Your task to perform on an android device: See recent photos Image 0: 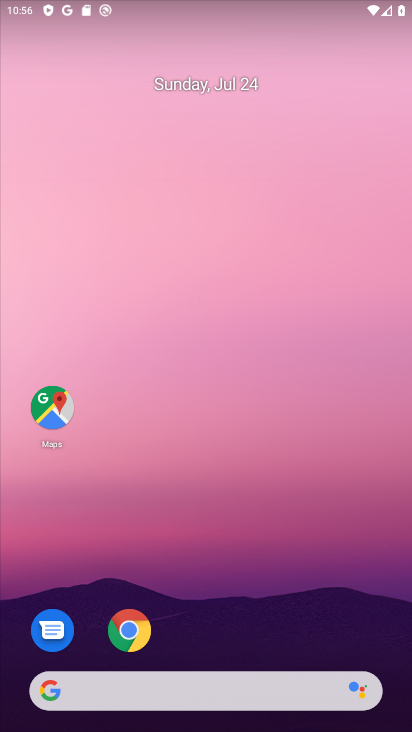
Step 0: press home button
Your task to perform on an android device: See recent photos Image 1: 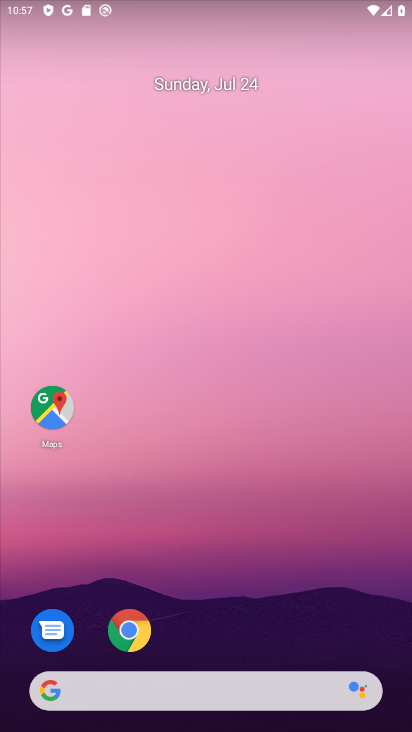
Step 1: drag from (298, 640) to (289, 133)
Your task to perform on an android device: See recent photos Image 2: 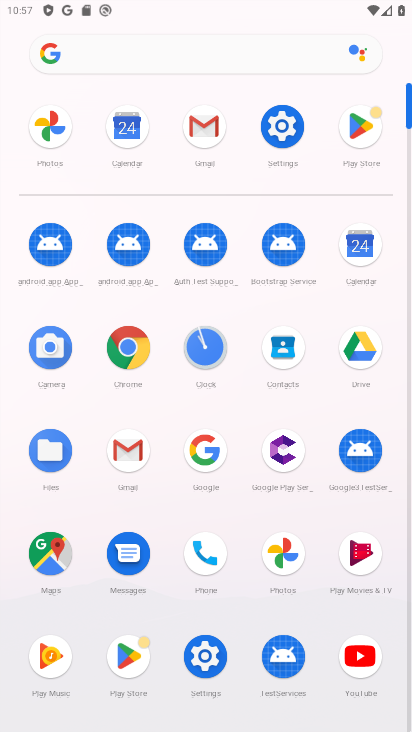
Step 2: click (281, 544)
Your task to perform on an android device: See recent photos Image 3: 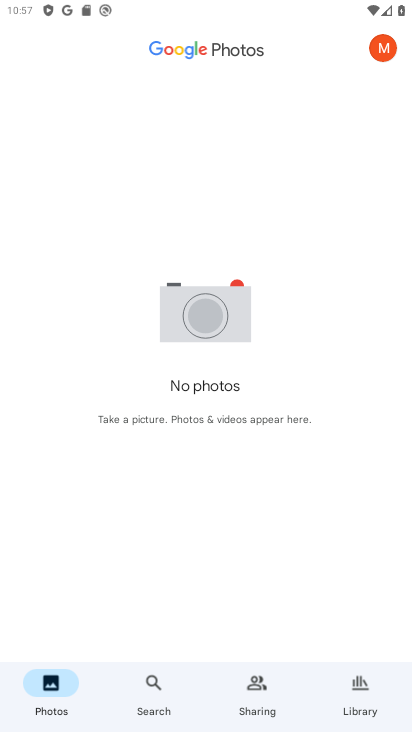
Step 3: task complete